Your task to perform on an android device: check google app version Image 0: 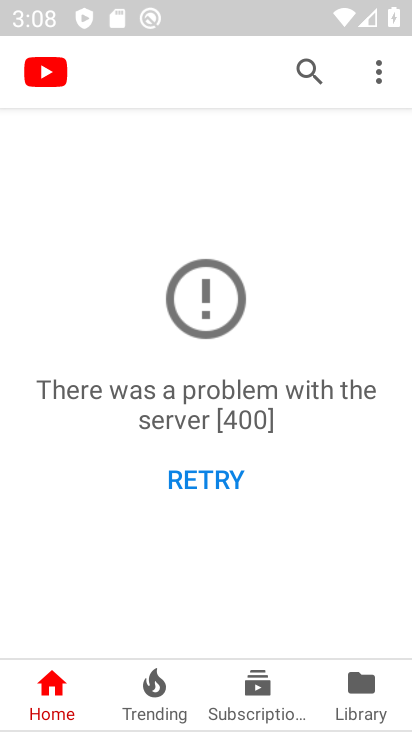
Step 0: press back button
Your task to perform on an android device: check google app version Image 1: 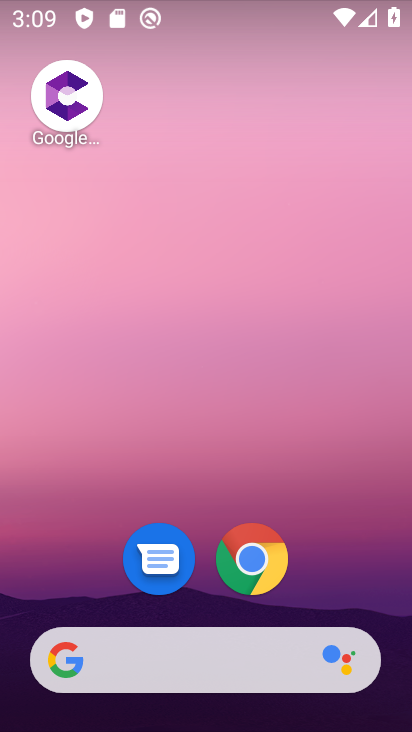
Step 1: drag from (301, 487) to (179, 2)
Your task to perform on an android device: check google app version Image 2: 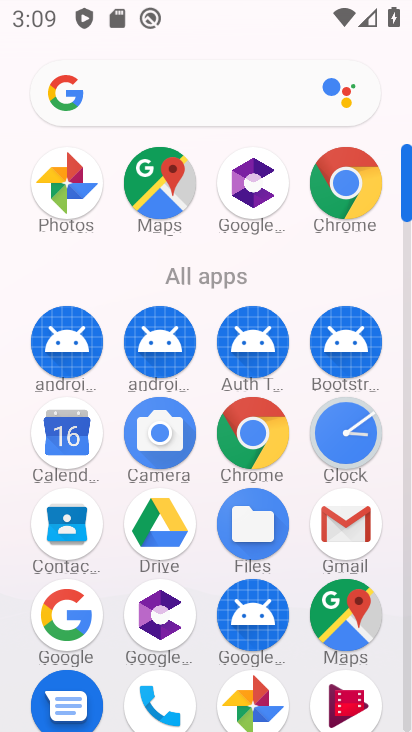
Step 2: drag from (11, 570) to (2, 292)
Your task to perform on an android device: check google app version Image 3: 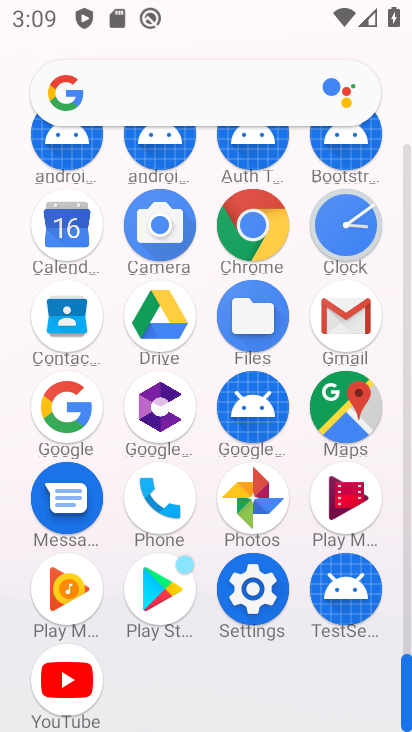
Step 3: click (67, 405)
Your task to perform on an android device: check google app version Image 4: 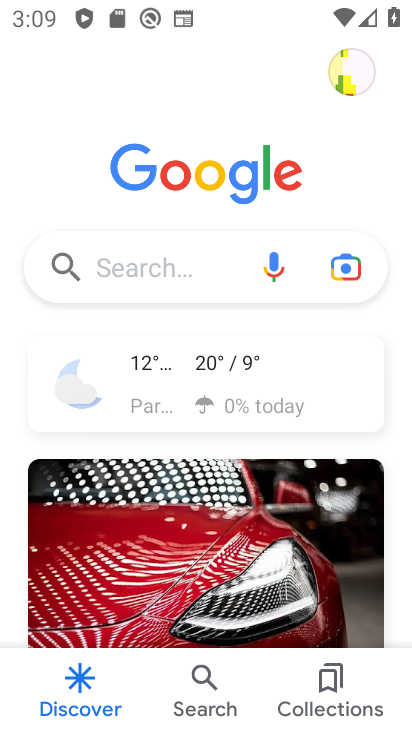
Step 4: drag from (193, 469) to (147, 79)
Your task to perform on an android device: check google app version Image 5: 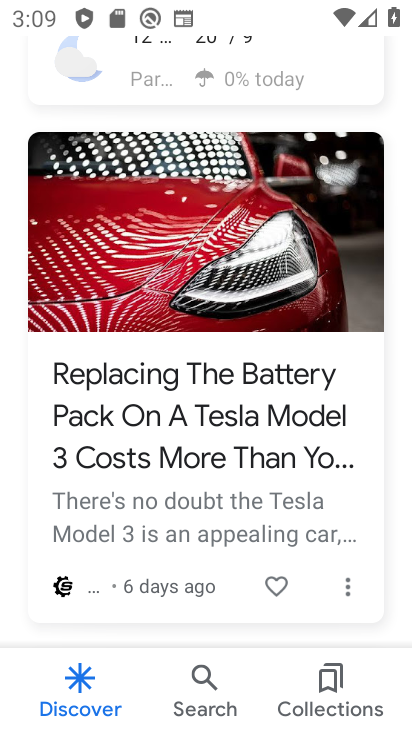
Step 5: drag from (183, 457) to (171, 532)
Your task to perform on an android device: check google app version Image 6: 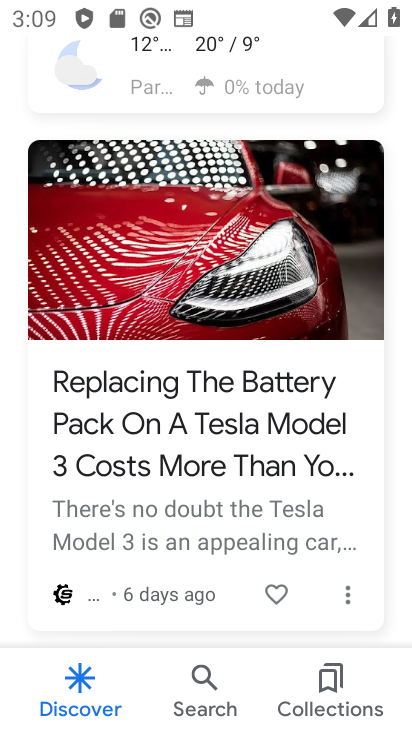
Step 6: drag from (265, 70) to (218, 447)
Your task to perform on an android device: check google app version Image 7: 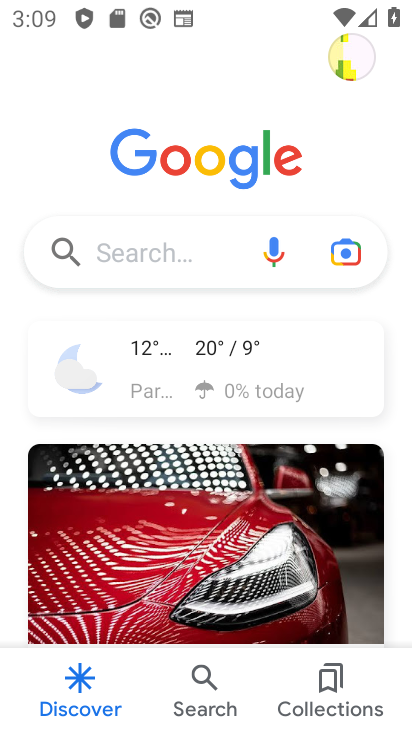
Step 7: click (344, 684)
Your task to perform on an android device: check google app version Image 8: 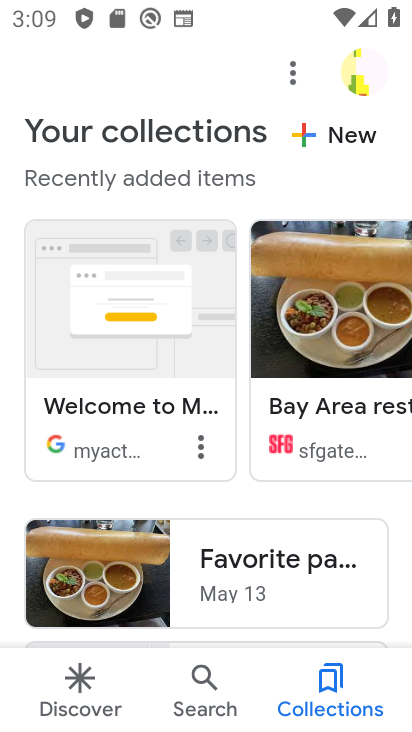
Step 8: drag from (286, 69) to (224, 51)
Your task to perform on an android device: check google app version Image 9: 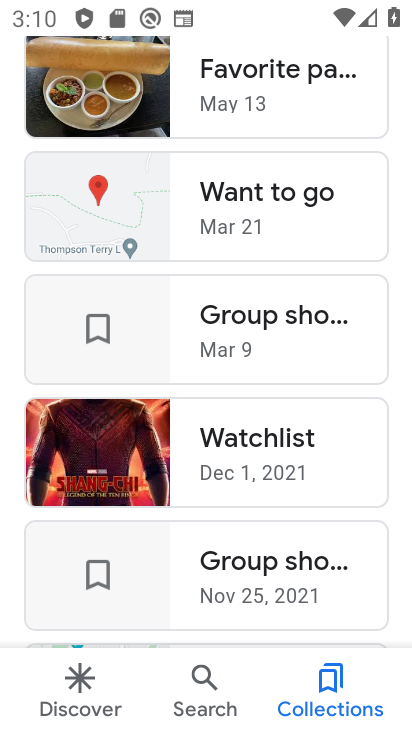
Step 9: drag from (266, 577) to (262, 151)
Your task to perform on an android device: check google app version Image 10: 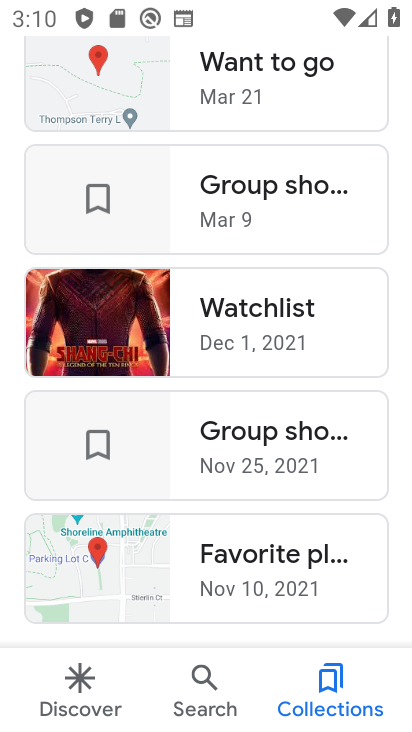
Step 10: drag from (285, 524) to (279, 232)
Your task to perform on an android device: check google app version Image 11: 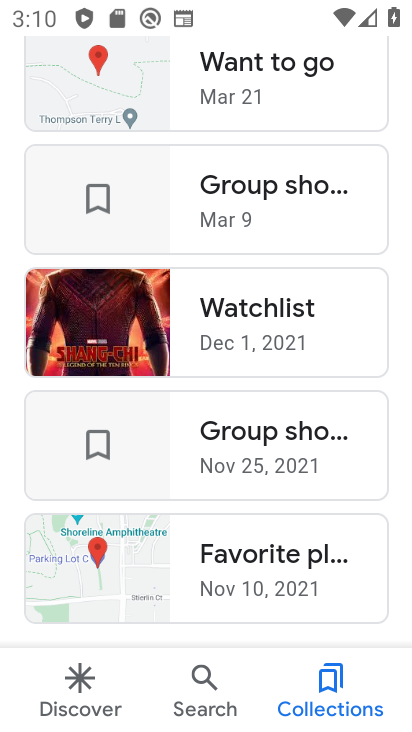
Step 11: drag from (269, 540) to (274, 150)
Your task to perform on an android device: check google app version Image 12: 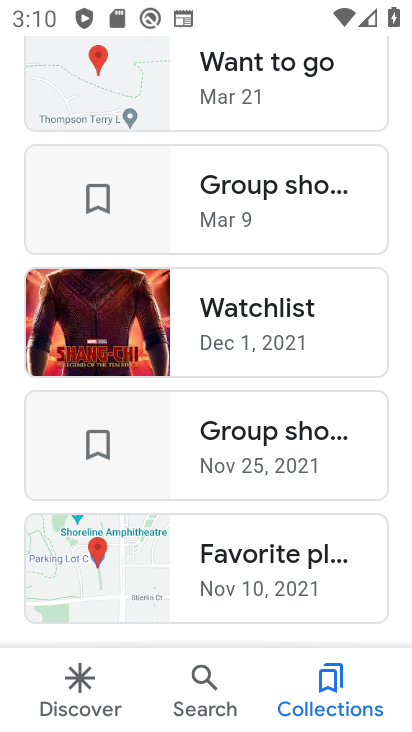
Step 12: drag from (276, 146) to (298, 539)
Your task to perform on an android device: check google app version Image 13: 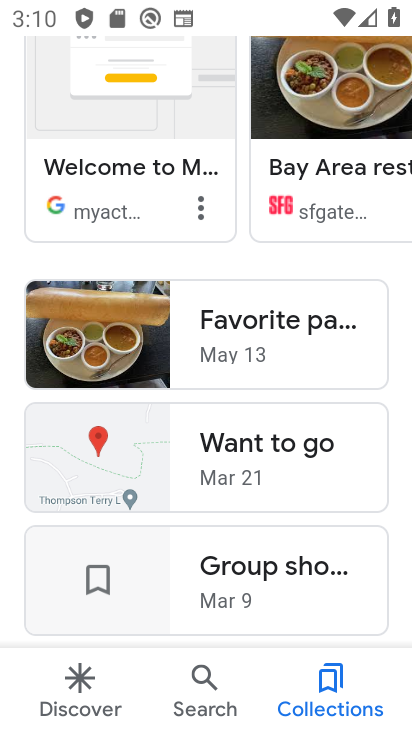
Step 13: drag from (259, 339) to (273, 570)
Your task to perform on an android device: check google app version Image 14: 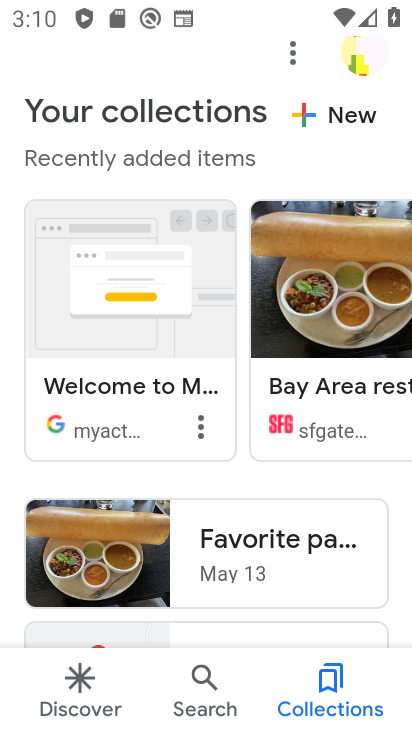
Step 14: drag from (279, 44) to (272, 572)
Your task to perform on an android device: check google app version Image 15: 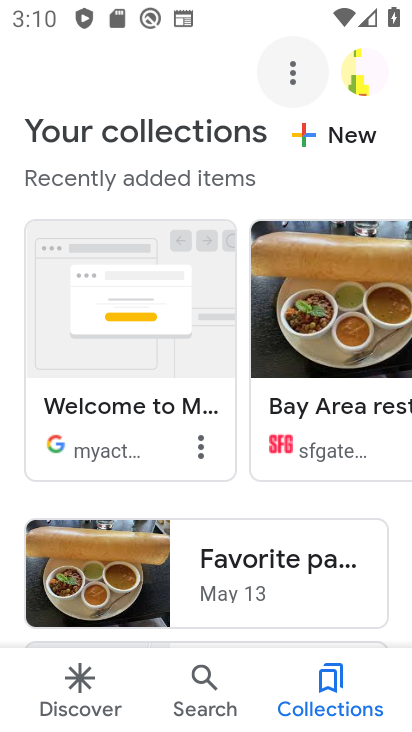
Step 15: drag from (293, 548) to (275, 144)
Your task to perform on an android device: check google app version Image 16: 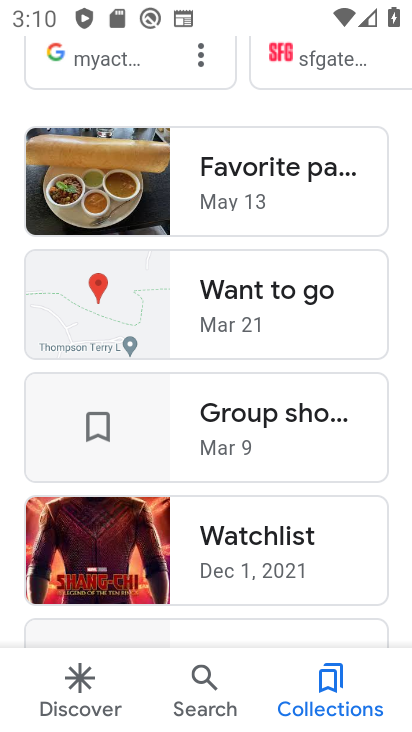
Step 16: drag from (319, 197) to (323, 539)
Your task to perform on an android device: check google app version Image 17: 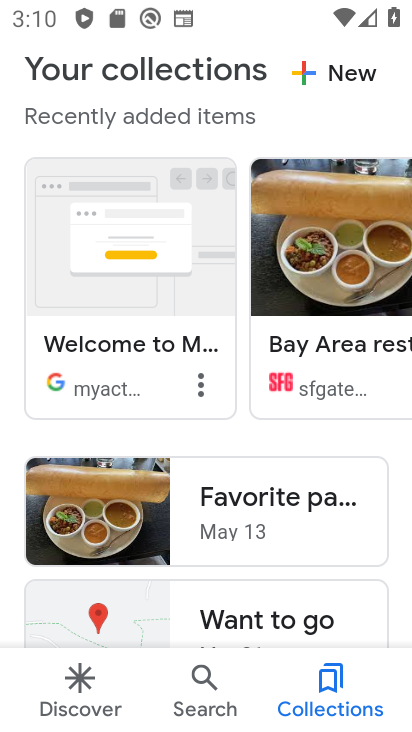
Step 17: drag from (317, 281) to (74, 287)
Your task to perform on an android device: check google app version Image 18: 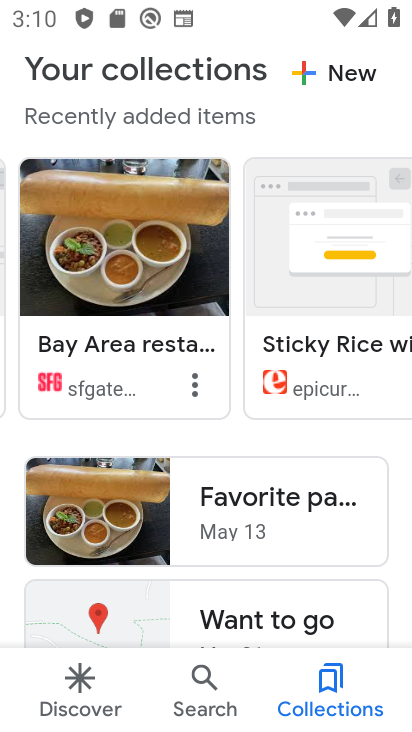
Step 18: drag from (375, 305) to (204, 313)
Your task to perform on an android device: check google app version Image 19: 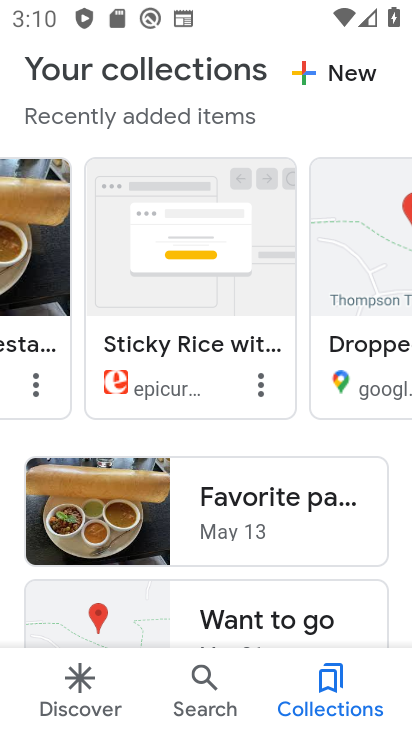
Step 19: drag from (355, 272) to (116, 274)
Your task to perform on an android device: check google app version Image 20: 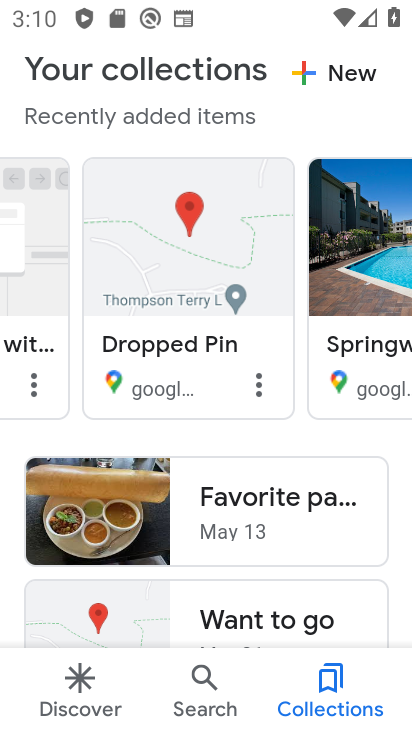
Step 20: drag from (362, 262) to (148, 248)
Your task to perform on an android device: check google app version Image 21: 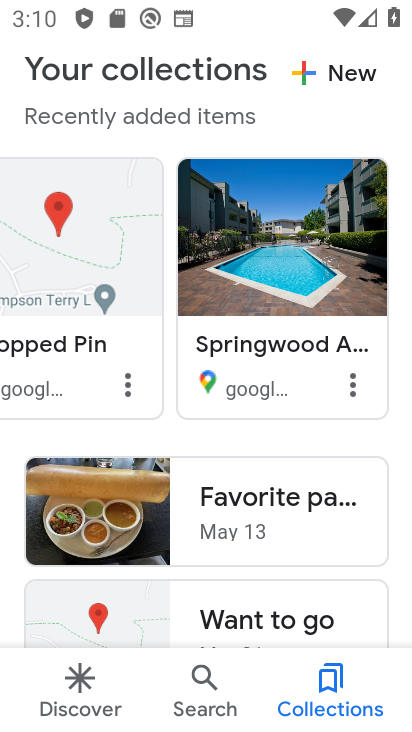
Step 21: drag from (352, 233) to (59, 249)
Your task to perform on an android device: check google app version Image 22: 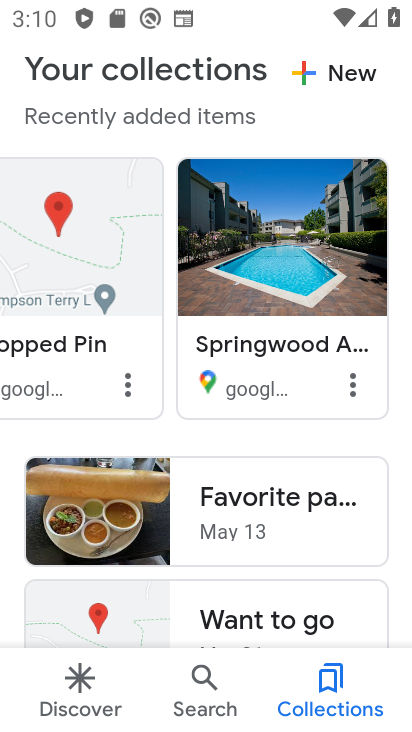
Step 22: drag from (283, 178) to (282, 594)
Your task to perform on an android device: check google app version Image 23: 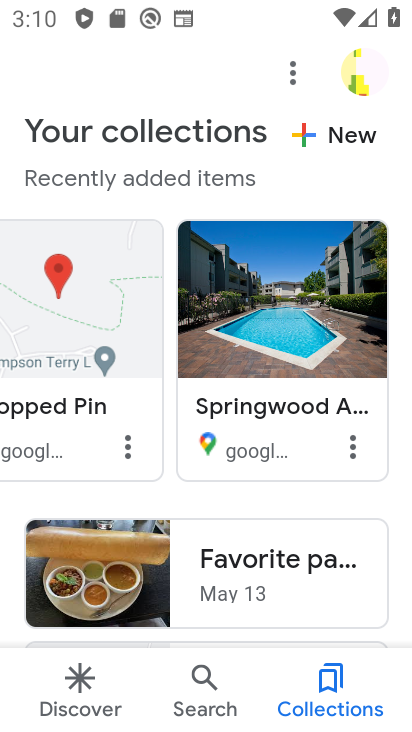
Step 23: click (287, 64)
Your task to perform on an android device: check google app version Image 24: 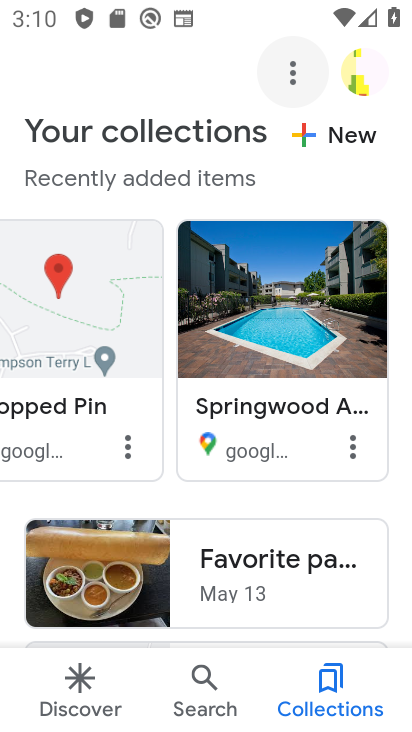
Step 24: click (293, 70)
Your task to perform on an android device: check google app version Image 25: 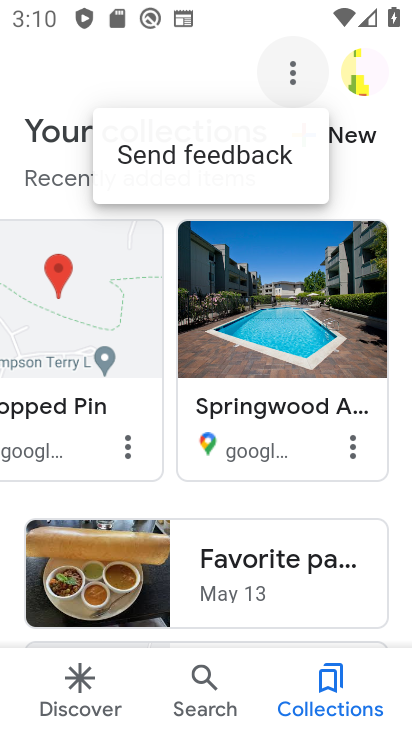
Step 25: click (294, 70)
Your task to perform on an android device: check google app version Image 26: 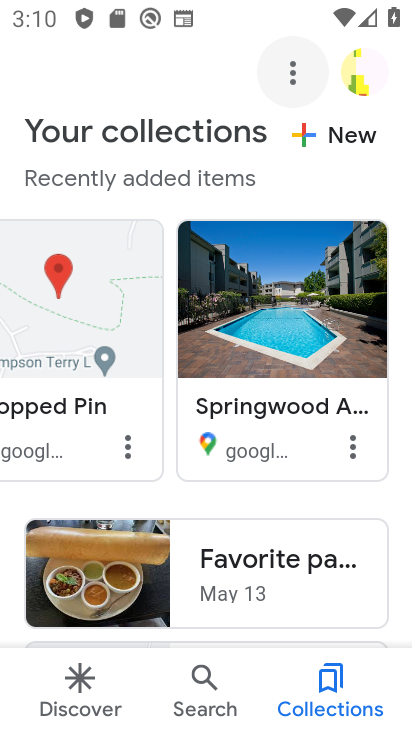
Step 26: click (293, 73)
Your task to perform on an android device: check google app version Image 27: 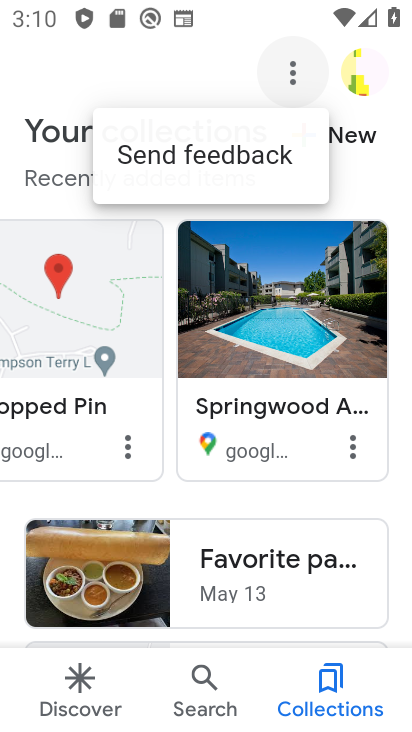
Step 27: click (212, 66)
Your task to perform on an android device: check google app version Image 28: 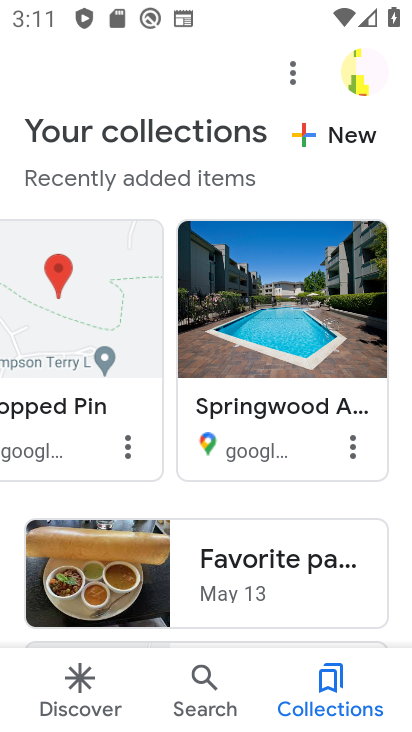
Step 28: click (371, 72)
Your task to perform on an android device: check google app version Image 29: 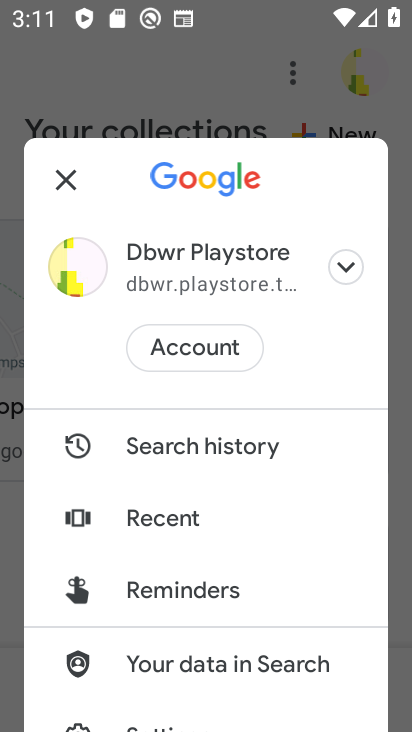
Step 29: drag from (198, 615) to (263, 297)
Your task to perform on an android device: check google app version Image 30: 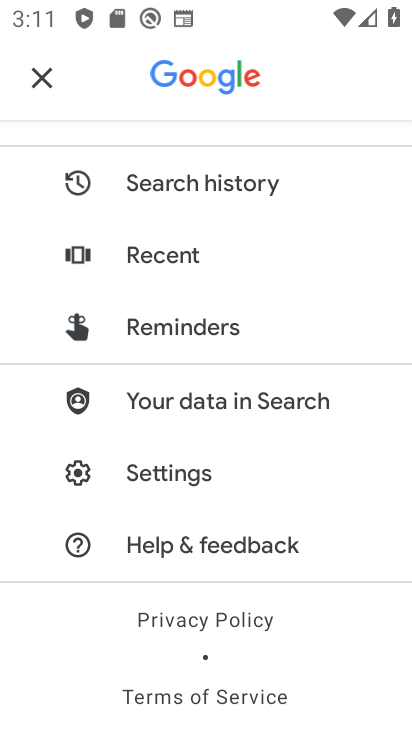
Step 30: click (202, 472)
Your task to perform on an android device: check google app version Image 31: 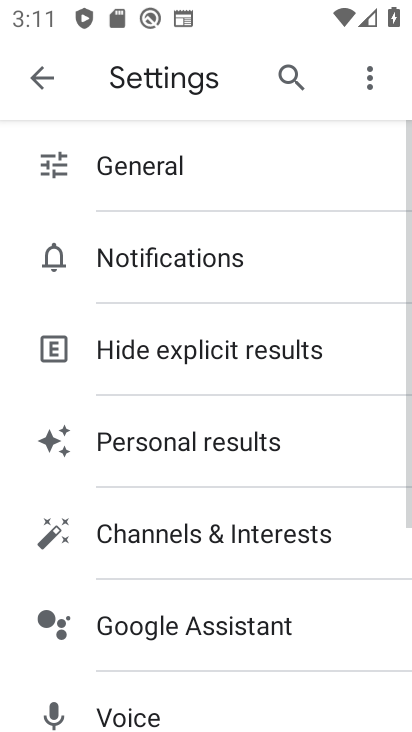
Step 31: drag from (226, 632) to (230, 174)
Your task to perform on an android device: check google app version Image 32: 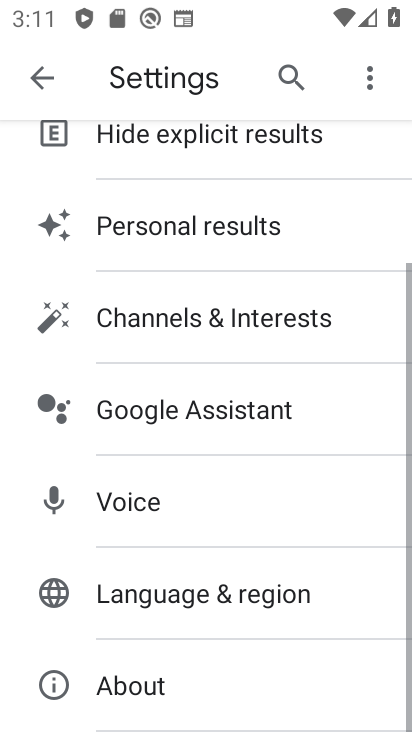
Step 32: drag from (237, 635) to (241, 220)
Your task to perform on an android device: check google app version Image 33: 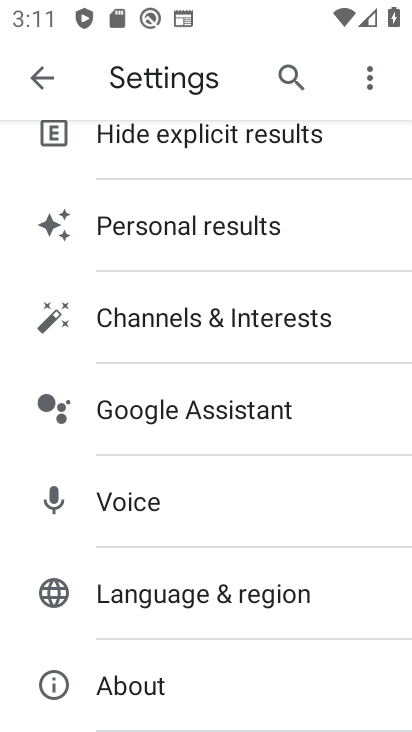
Step 33: click (180, 686)
Your task to perform on an android device: check google app version Image 34: 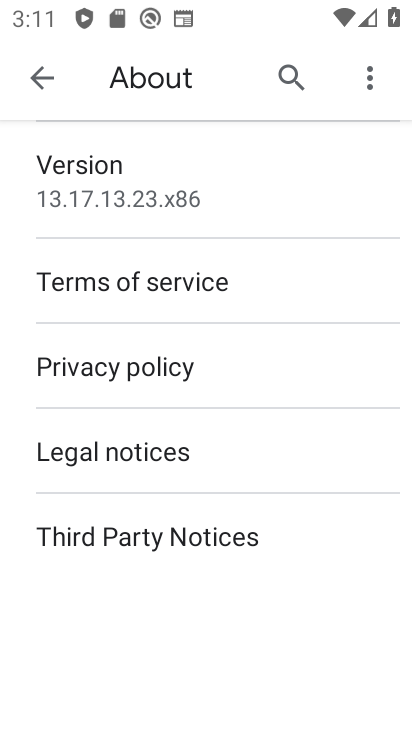
Step 34: click (191, 192)
Your task to perform on an android device: check google app version Image 35: 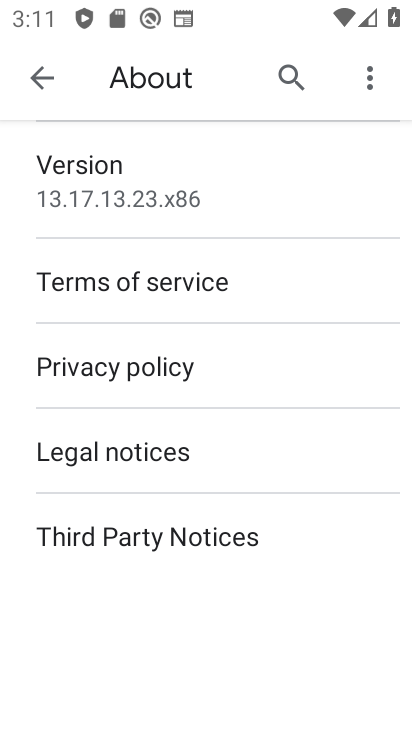
Step 35: task complete